Your task to perform on an android device: turn off translation in the chrome app Image 0: 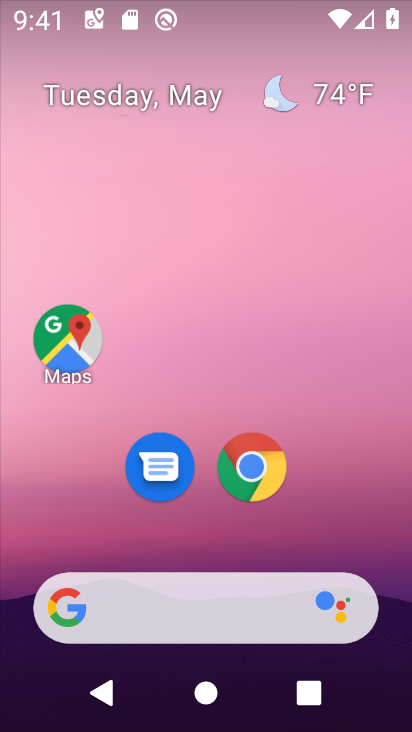
Step 0: drag from (345, 434) to (345, 137)
Your task to perform on an android device: turn off translation in the chrome app Image 1: 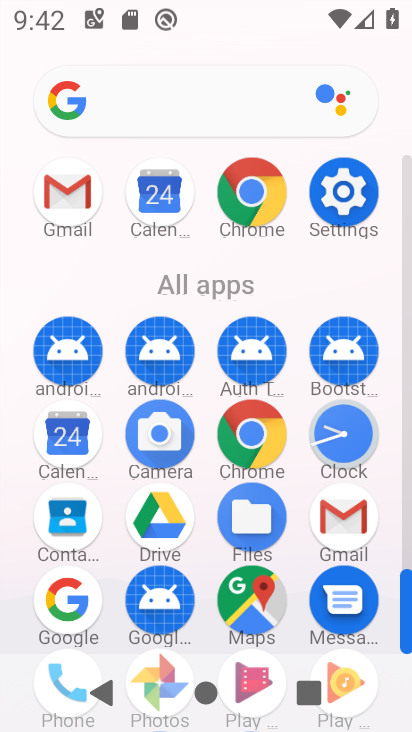
Step 1: click (244, 454)
Your task to perform on an android device: turn off translation in the chrome app Image 2: 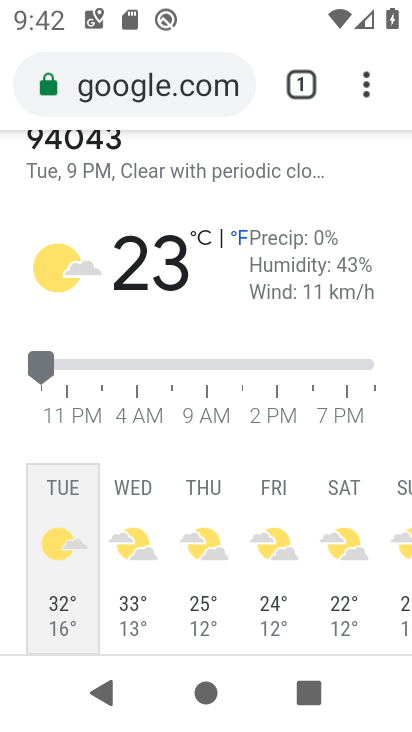
Step 2: drag from (345, 99) to (160, 528)
Your task to perform on an android device: turn off translation in the chrome app Image 3: 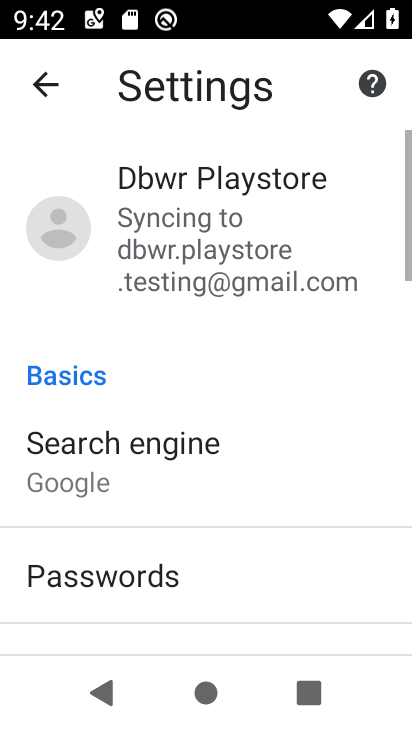
Step 3: drag from (232, 546) to (257, 219)
Your task to perform on an android device: turn off translation in the chrome app Image 4: 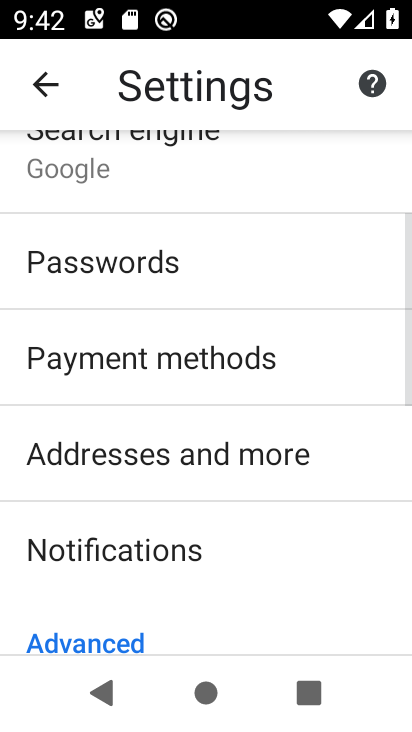
Step 4: drag from (189, 567) to (246, 265)
Your task to perform on an android device: turn off translation in the chrome app Image 5: 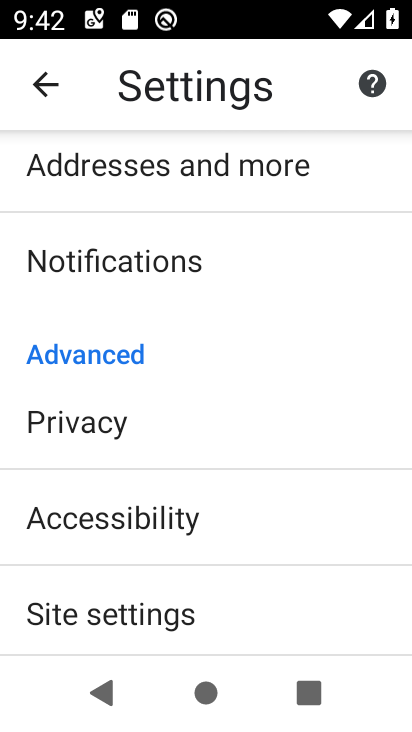
Step 5: drag from (235, 558) to (265, 254)
Your task to perform on an android device: turn off translation in the chrome app Image 6: 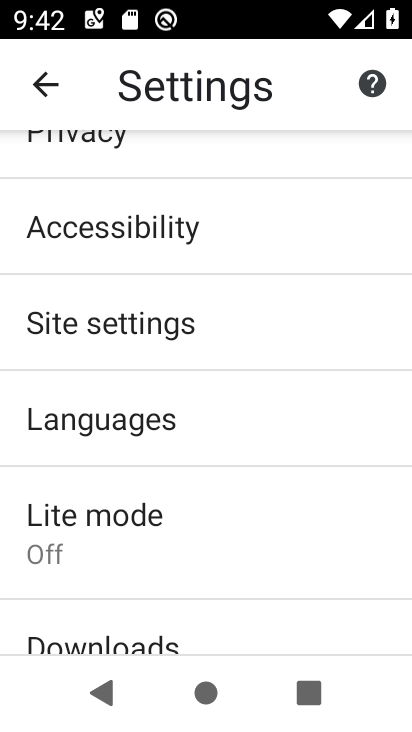
Step 6: click (178, 424)
Your task to perform on an android device: turn off translation in the chrome app Image 7: 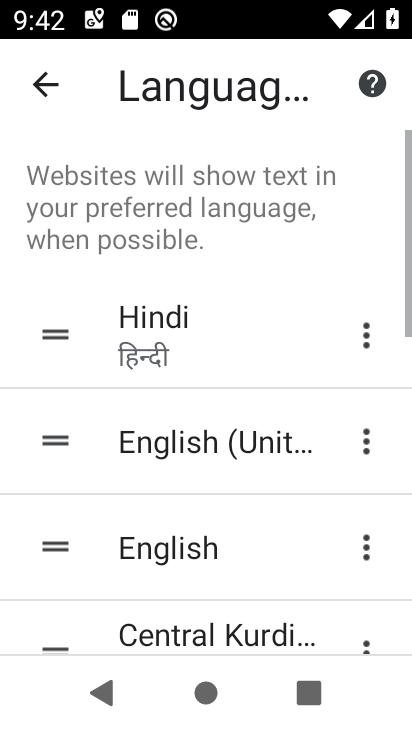
Step 7: task complete